Your task to perform on an android device: Do I have any events this weekend? Image 0: 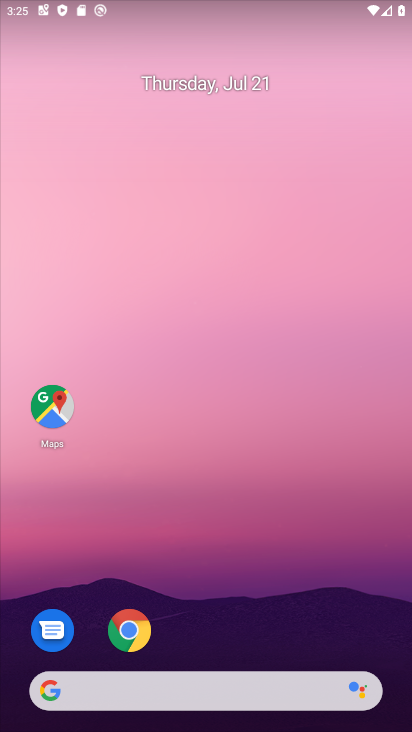
Step 0: drag from (216, 641) to (216, 79)
Your task to perform on an android device: Do I have any events this weekend? Image 1: 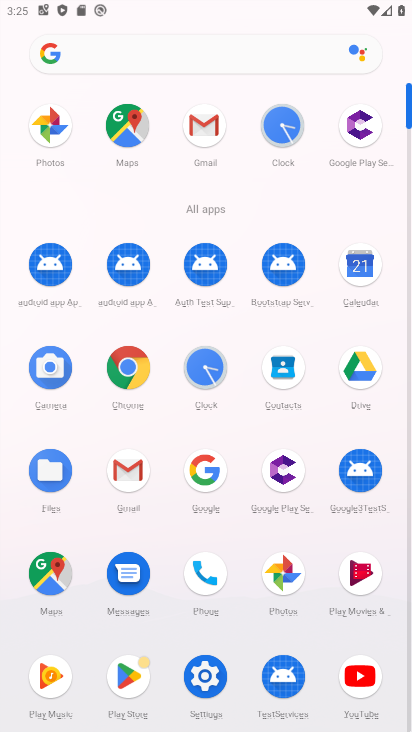
Step 1: click (363, 264)
Your task to perform on an android device: Do I have any events this weekend? Image 2: 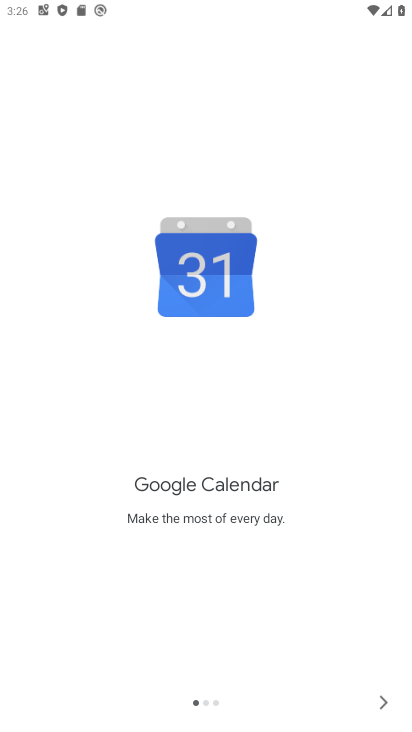
Step 2: click (379, 708)
Your task to perform on an android device: Do I have any events this weekend? Image 3: 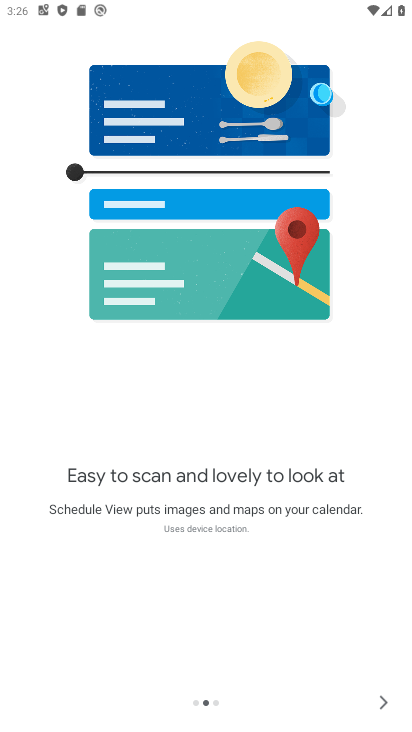
Step 3: click (382, 705)
Your task to perform on an android device: Do I have any events this weekend? Image 4: 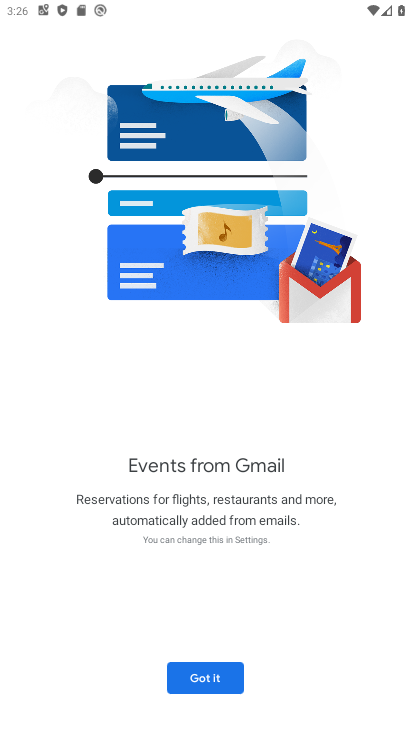
Step 4: click (218, 687)
Your task to perform on an android device: Do I have any events this weekend? Image 5: 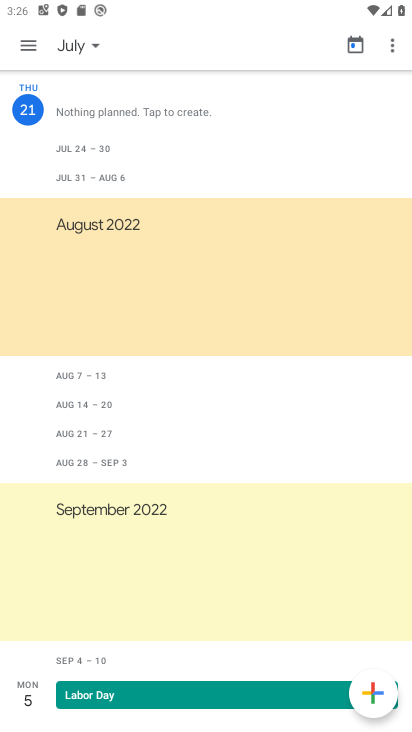
Step 5: click (29, 45)
Your task to perform on an android device: Do I have any events this weekend? Image 6: 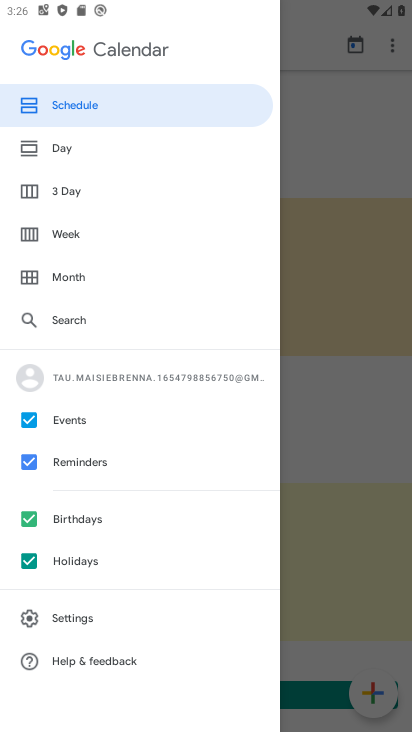
Step 6: click (99, 232)
Your task to perform on an android device: Do I have any events this weekend? Image 7: 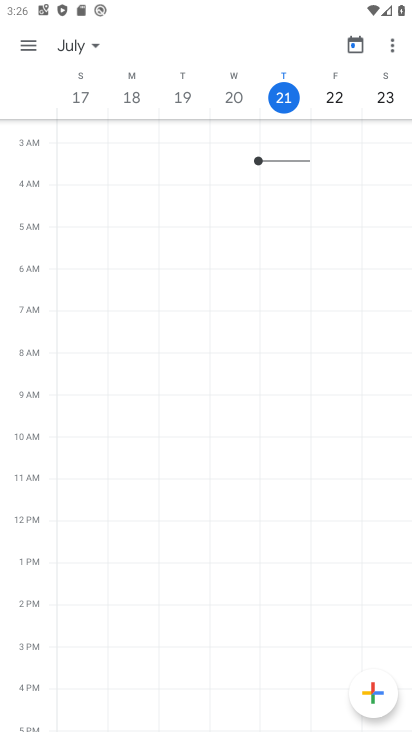
Step 7: task complete